Your task to perform on an android device: Toggle the flashlight Image 0: 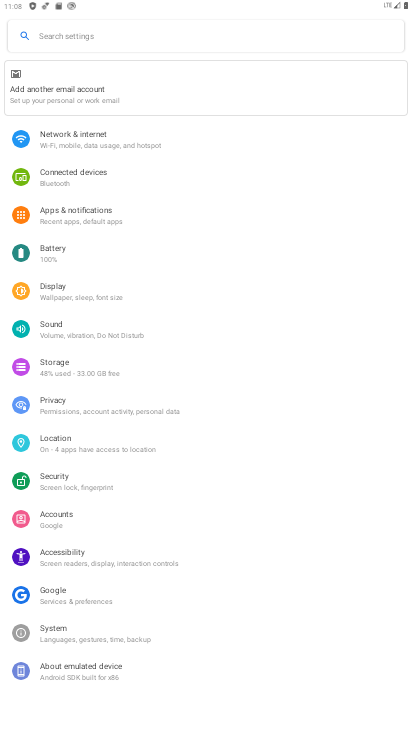
Step 0: click (57, 283)
Your task to perform on an android device: Toggle the flashlight Image 1: 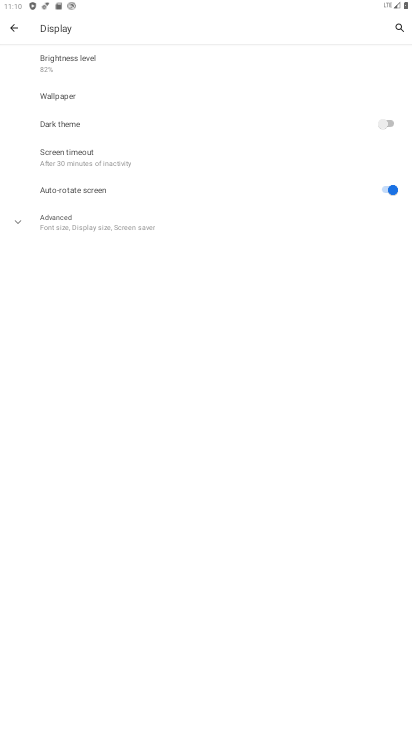
Step 1: click (81, 144)
Your task to perform on an android device: Toggle the flashlight Image 2: 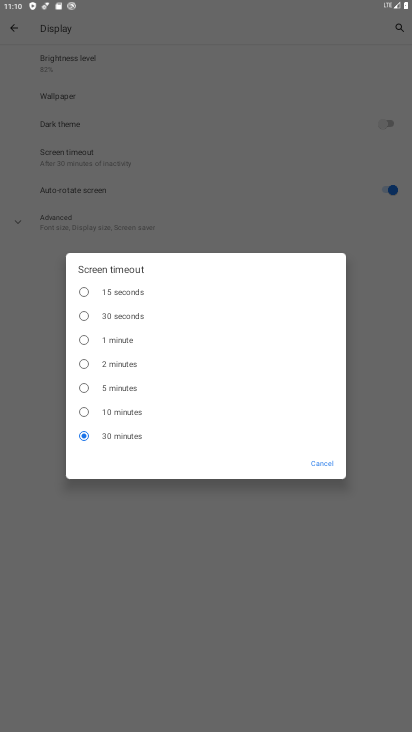
Step 2: click (317, 460)
Your task to perform on an android device: Toggle the flashlight Image 3: 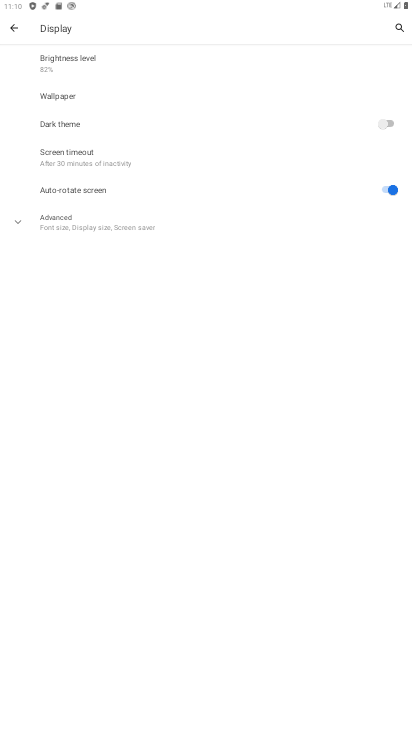
Step 3: task complete